Your task to perform on an android device: Go to privacy settings Image 0: 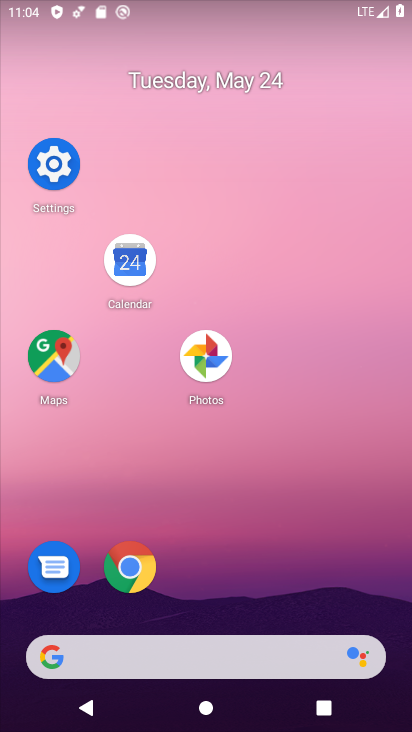
Step 0: click (44, 156)
Your task to perform on an android device: Go to privacy settings Image 1: 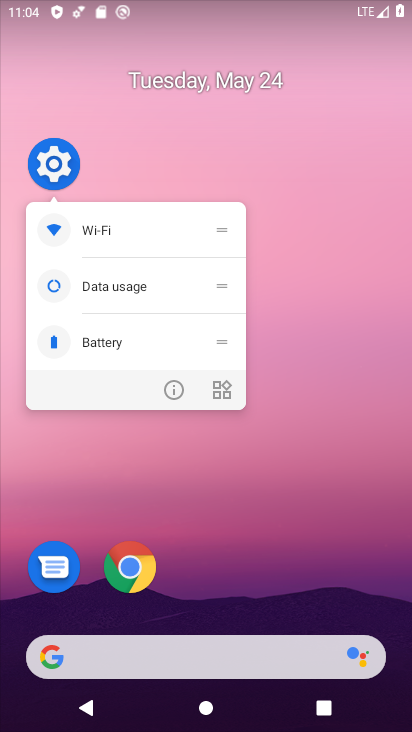
Step 1: click (55, 177)
Your task to perform on an android device: Go to privacy settings Image 2: 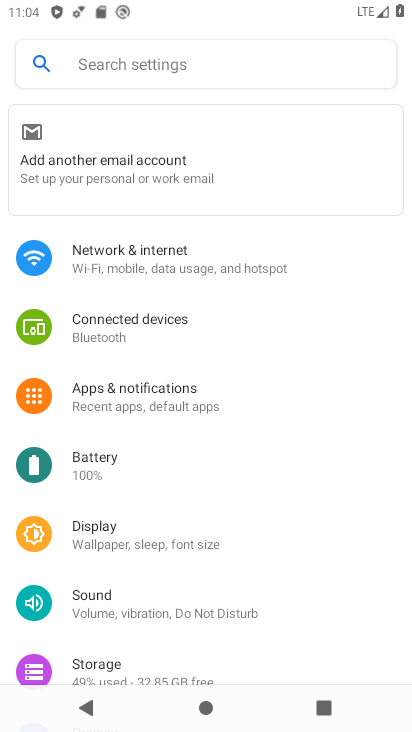
Step 2: drag from (158, 621) to (242, 248)
Your task to perform on an android device: Go to privacy settings Image 3: 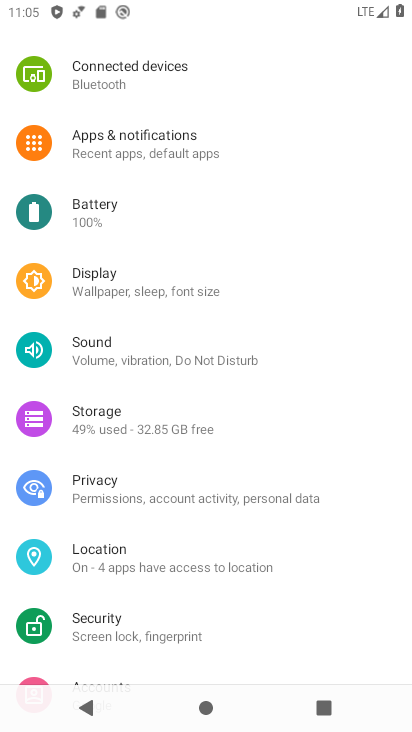
Step 3: click (145, 498)
Your task to perform on an android device: Go to privacy settings Image 4: 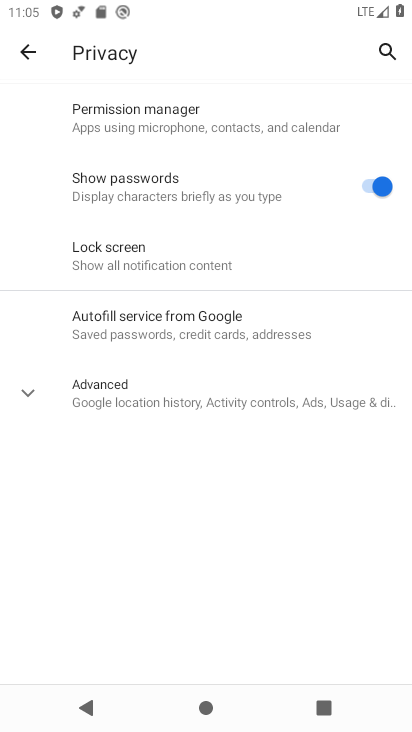
Step 4: task complete